Your task to perform on an android device: add a contact Image 0: 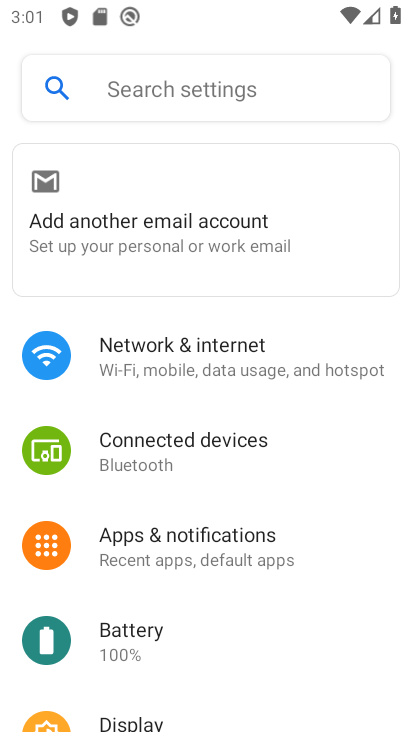
Step 0: press home button
Your task to perform on an android device: add a contact Image 1: 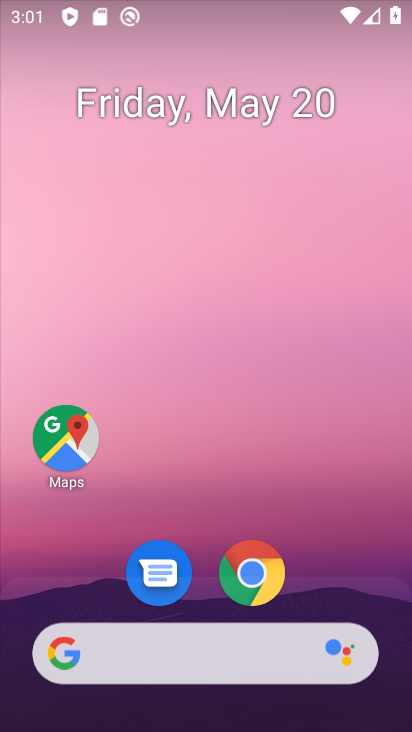
Step 1: drag from (222, 613) to (340, 32)
Your task to perform on an android device: add a contact Image 2: 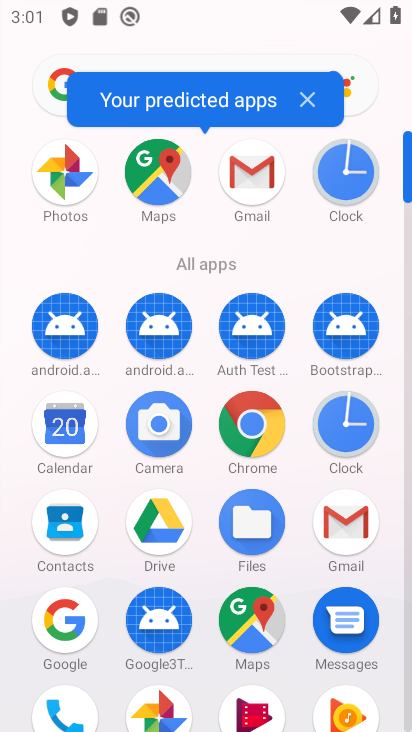
Step 2: click (66, 690)
Your task to perform on an android device: add a contact Image 3: 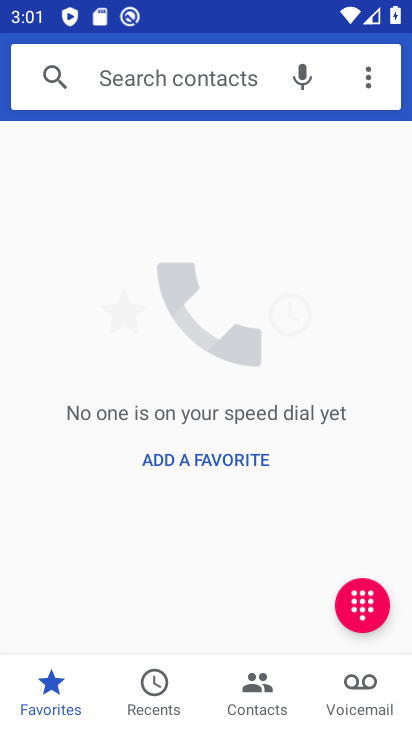
Step 3: click (263, 691)
Your task to perform on an android device: add a contact Image 4: 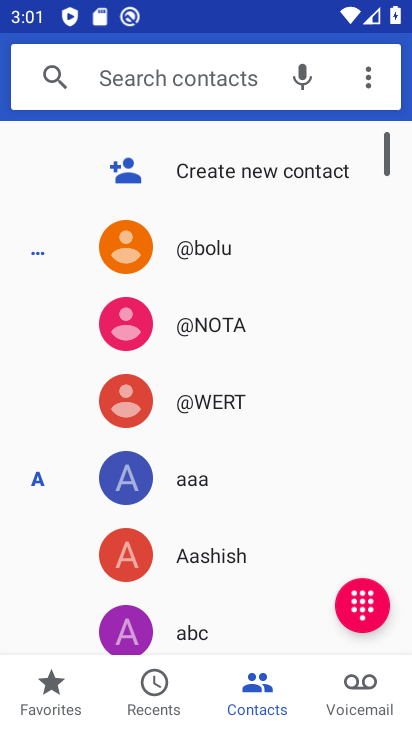
Step 4: click (222, 174)
Your task to perform on an android device: add a contact Image 5: 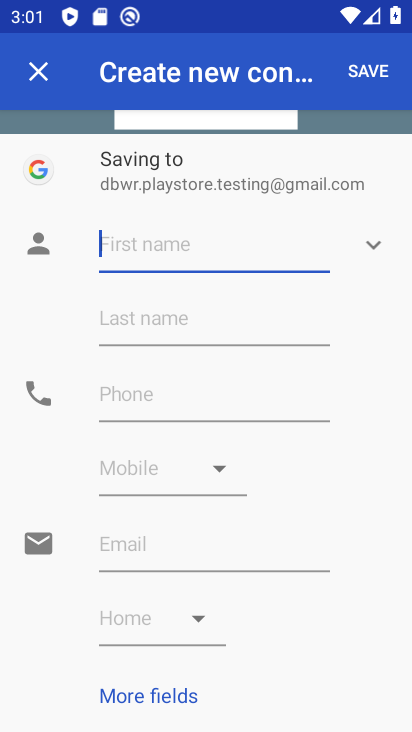
Step 5: type "hon'"
Your task to perform on an android device: add a contact Image 6: 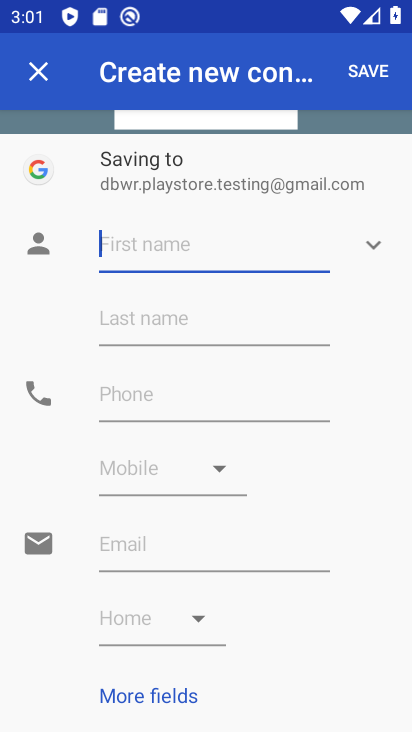
Step 6: click (221, 394)
Your task to perform on an android device: add a contact Image 7: 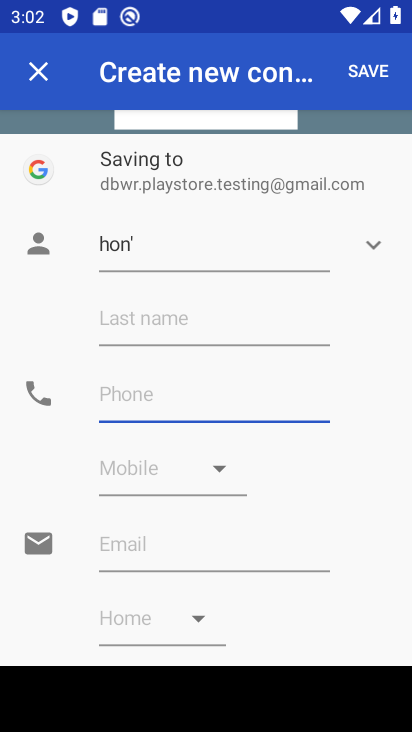
Step 7: type "80809"
Your task to perform on an android device: add a contact Image 8: 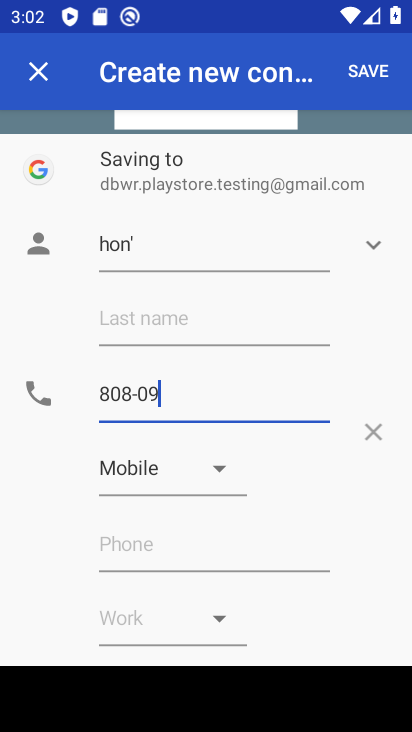
Step 8: click (350, 80)
Your task to perform on an android device: add a contact Image 9: 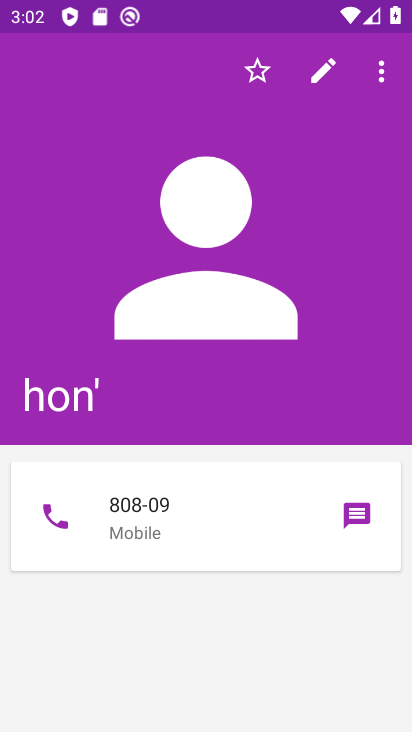
Step 9: task complete